Your task to perform on an android device: Go to ESPN.com Image 0: 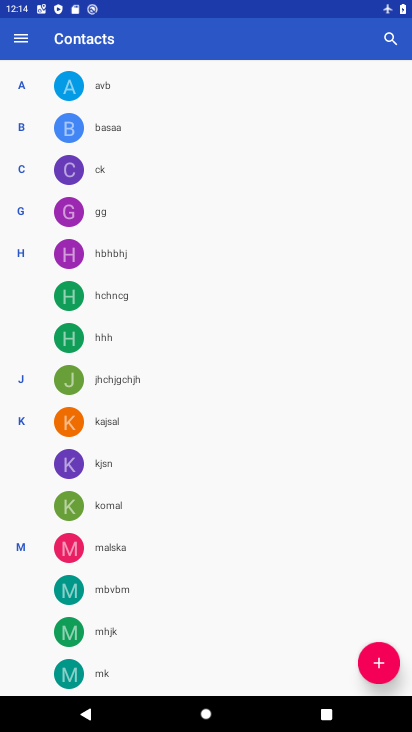
Step 0: press home button
Your task to perform on an android device: Go to ESPN.com Image 1: 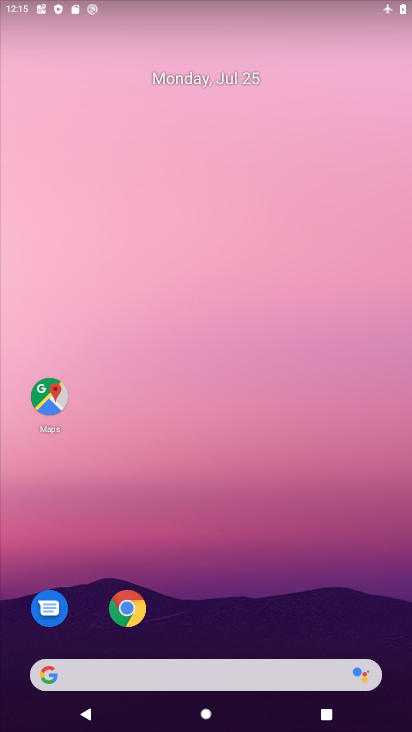
Step 1: click (132, 608)
Your task to perform on an android device: Go to ESPN.com Image 2: 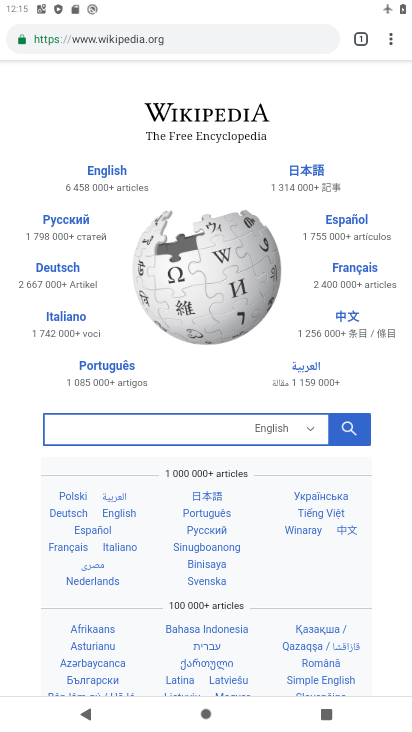
Step 2: click (120, 42)
Your task to perform on an android device: Go to ESPN.com Image 3: 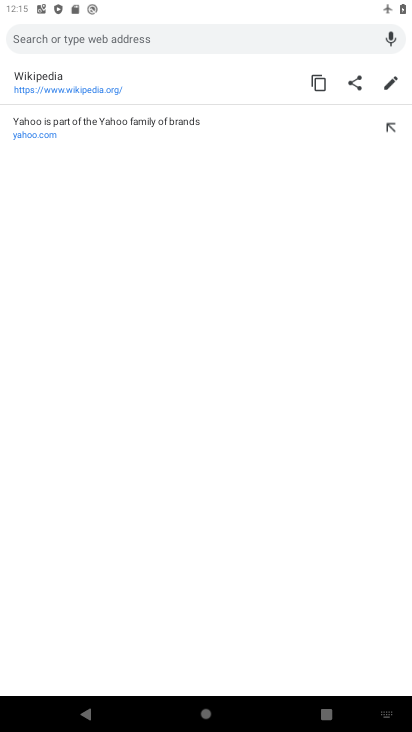
Step 3: type "espn.com"
Your task to perform on an android device: Go to ESPN.com Image 4: 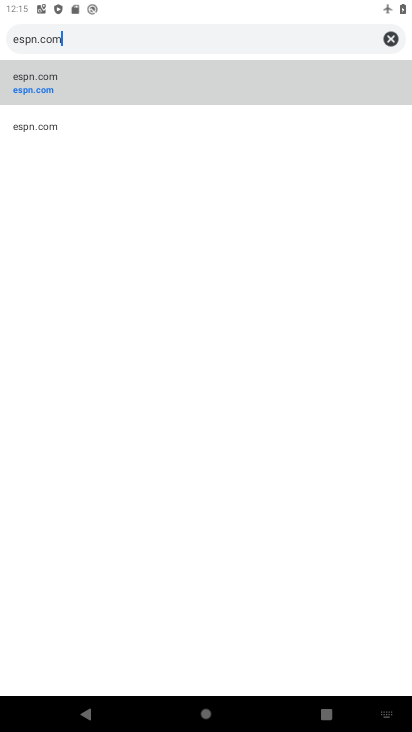
Step 4: click (44, 81)
Your task to perform on an android device: Go to ESPN.com Image 5: 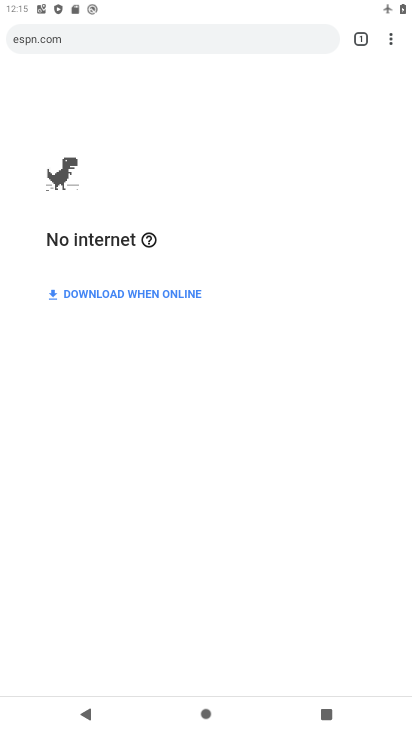
Step 5: drag from (167, 0) to (204, 534)
Your task to perform on an android device: Go to ESPN.com Image 6: 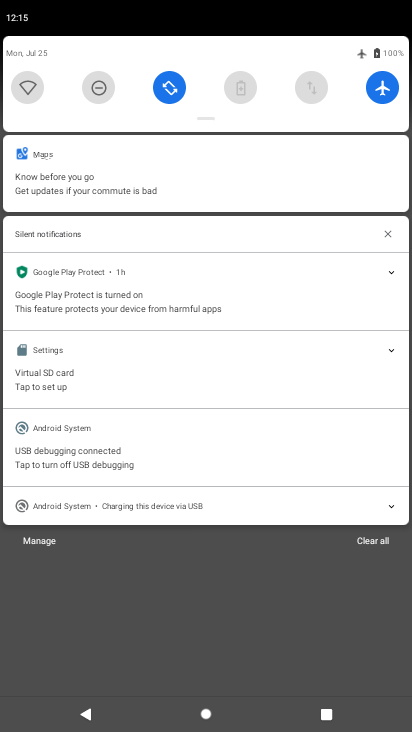
Step 6: click (390, 89)
Your task to perform on an android device: Go to ESPN.com Image 7: 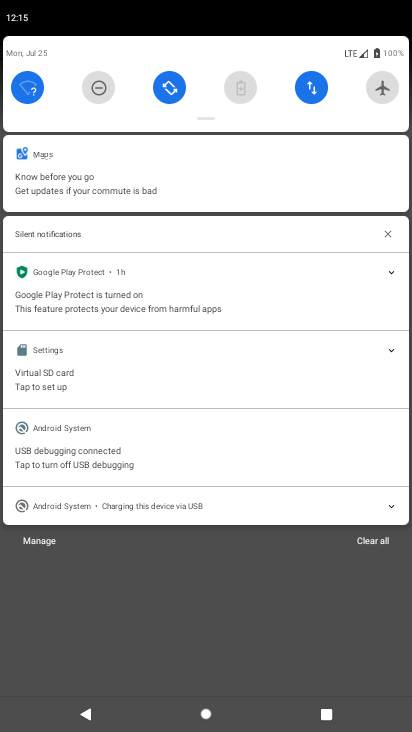
Step 7: task complete